Your task to perform on an android device: allow notifications from all sites in the chrome app Image 0: 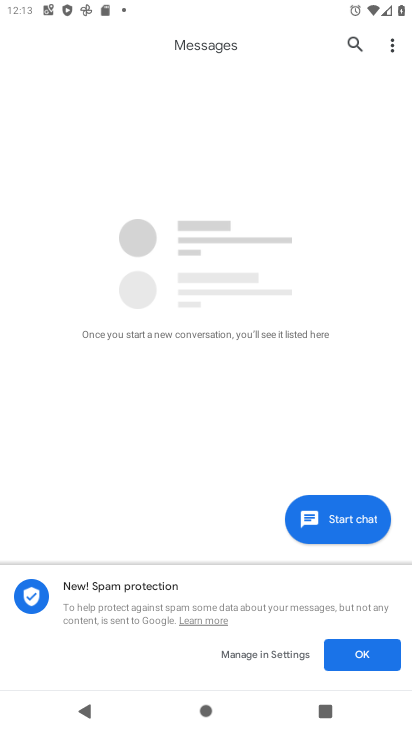
Step 0: task complete